Your task to perform on an android device: clear history in the chrome app Image 0: 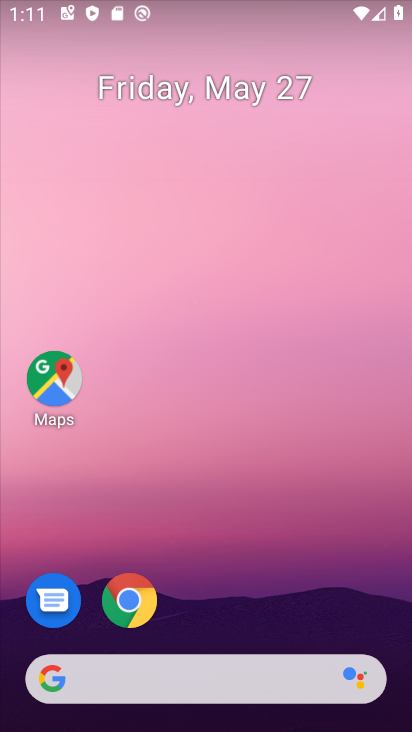
Step 0: click (130, 602)
Your task to perform on an android device: clear history in the chrome app Image 1: 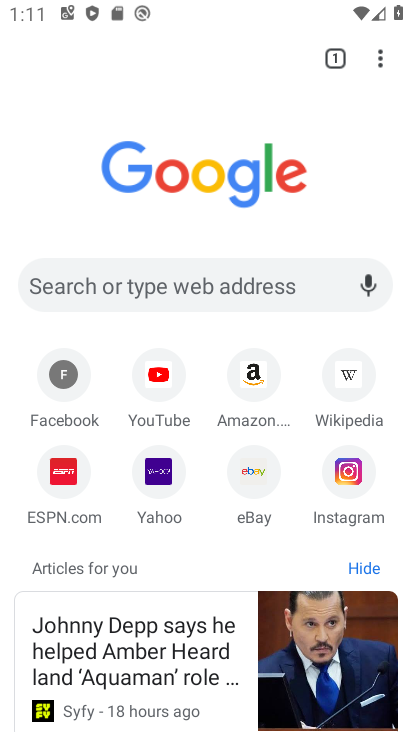
Step 1: click (380, 65)
Your task to perform on an android device: clear history in the chrome app Image 2: 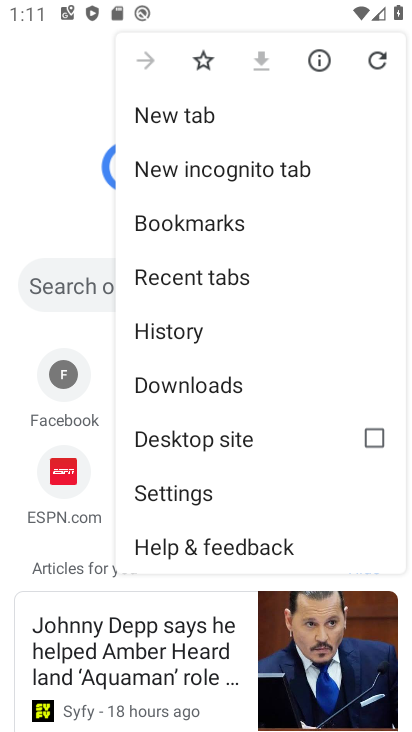
Step 2: click (178, 332)
Your task to perform on an android device: clear history in the chrome app Image 3: 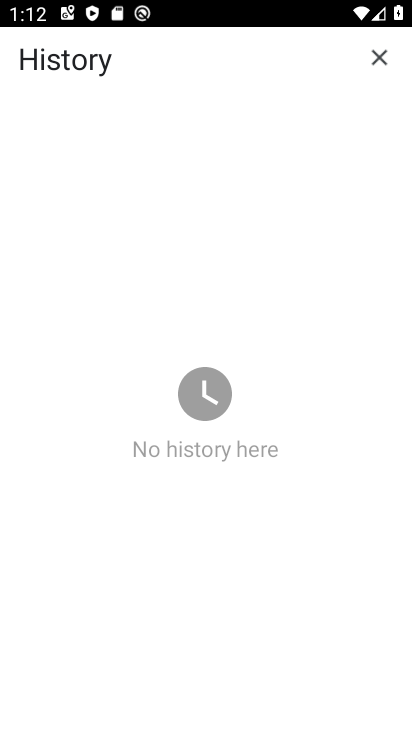
Step 3: task complete